Your task to perform on an android device: Find coffee shops on Maps Image 0: 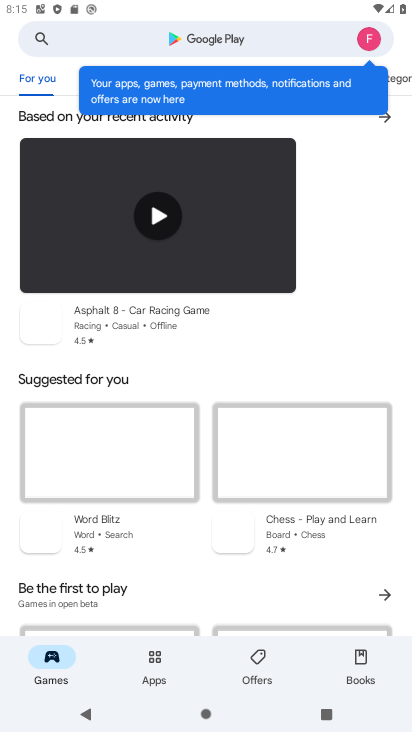
Step 0: press home button
Your task to perform on an android device: Find coffee shops on Maps Image 1: 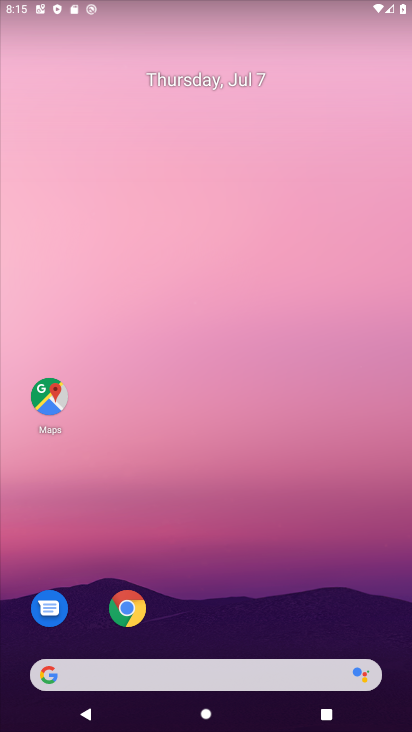
Step 1: click (44, 395)
Your task to perform on an android device: Find coffee shops on Maps Image 2: 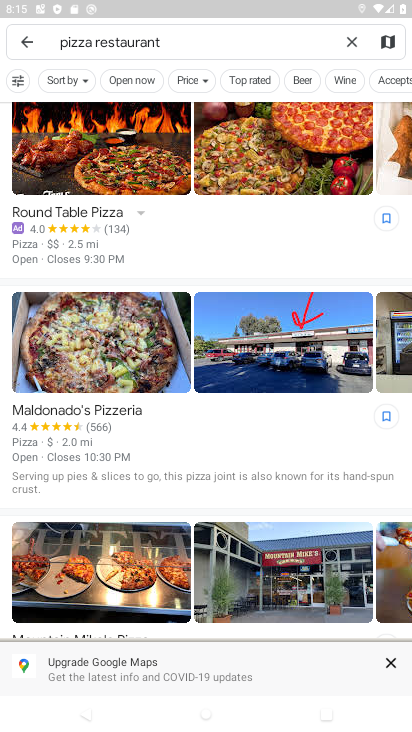
Step 2: click (351, 45)
Your task to perform on an android device: Find coffee shops on Maps Image 3: 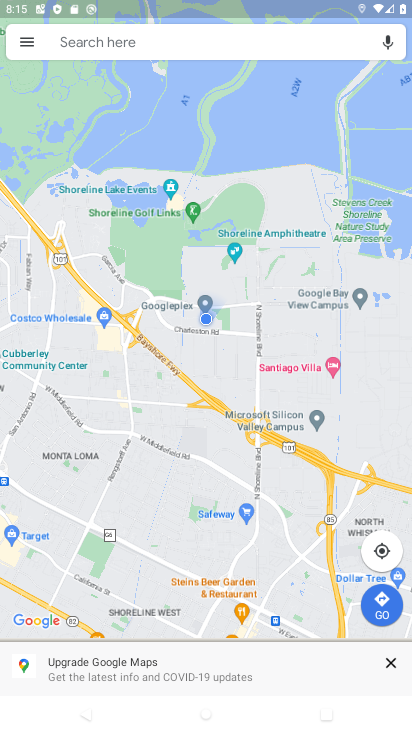
Step 3: click (280, 37)
Your task to perform on an android device: Find coffee shops on Maps Image 4: 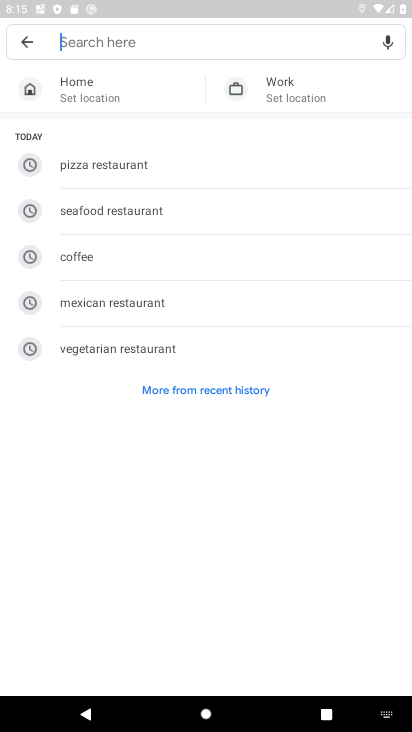
Step 4: type "coffee shops"
Your task to perform on an android device: Find coffee shops on Maps Image 5: 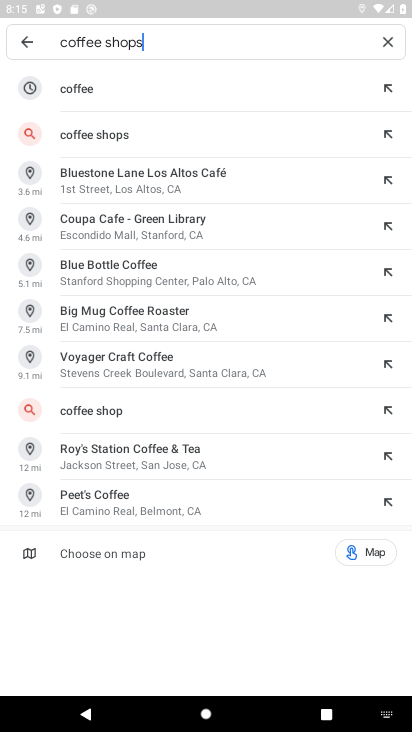
Step 5: click (79, 132)
Your task to perform on an android device: Find coffee shops on Maps Image 6: 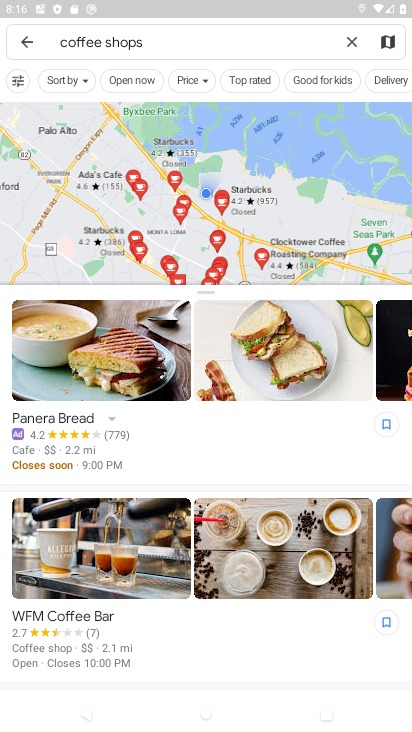
Step 6: task complete